Your task to perform on an android device: check the backup settings in the google photos Image 0: 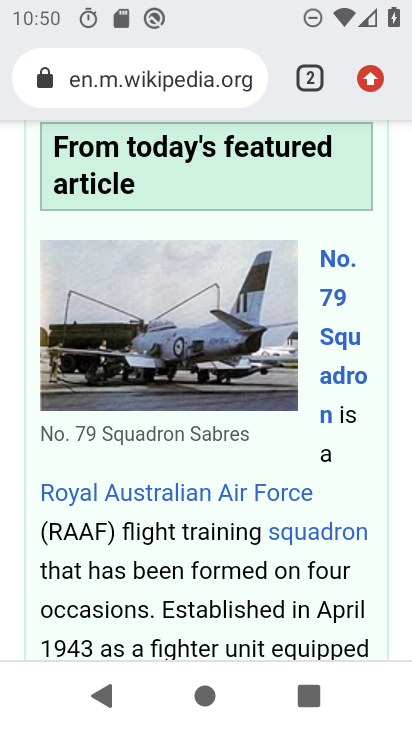
Step 0: press home button
Your task to perform on an android device: check the backup settings in the google photos Image 1: 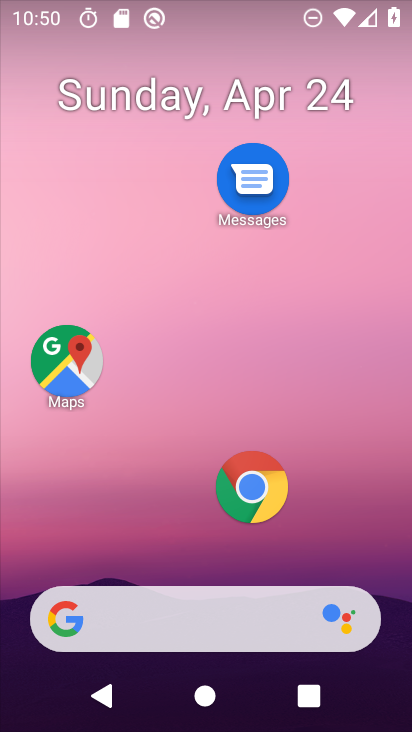
Step 1: drag from (137, 445) to (298, 0)
Your task to perform on an android device: check the backup settings in the google photos Image 2: 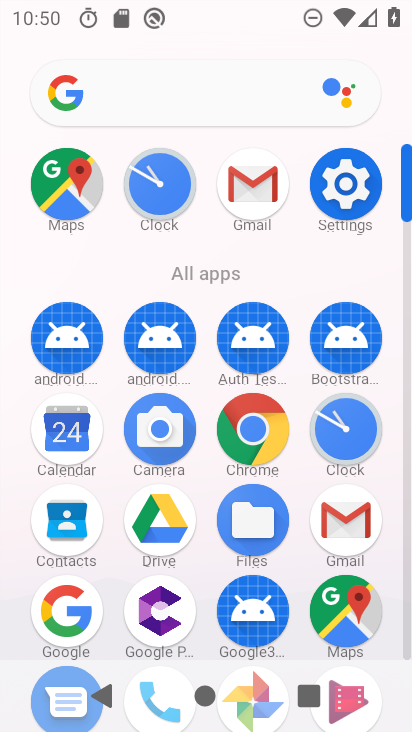
Step 2: drag from (205, 555) to (271, 69)
Your task to perform on an android device: check the backup settings in the google photos Image 3: 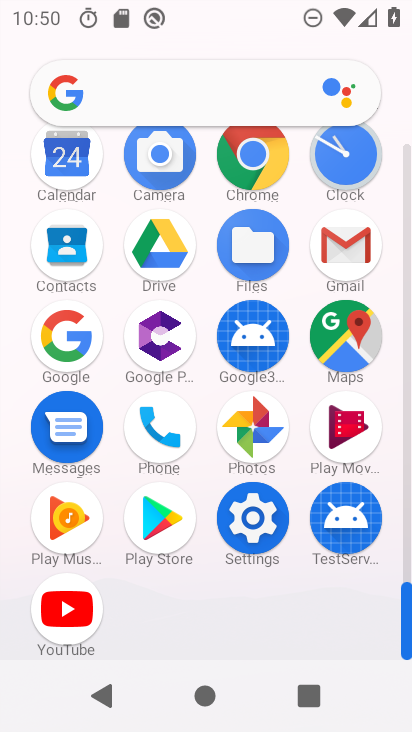
Step 3: click (256, 417)
Your task to perform on an android device: check the backup settings in the google photos Image 4: 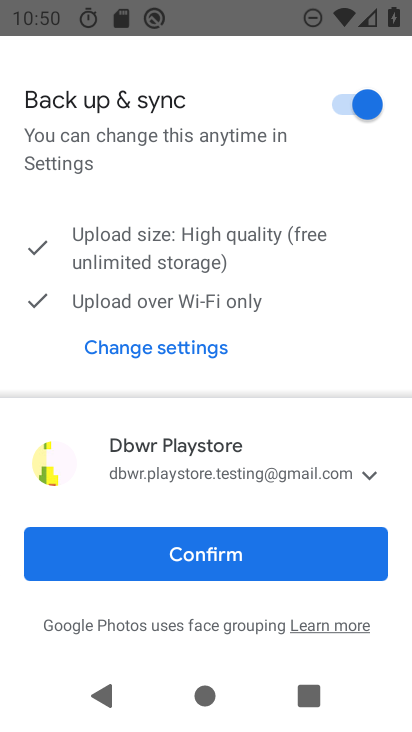
Step 4: click (243, 553)
Your task to perform on an android device: check the backup settings in the google photos Image 5: 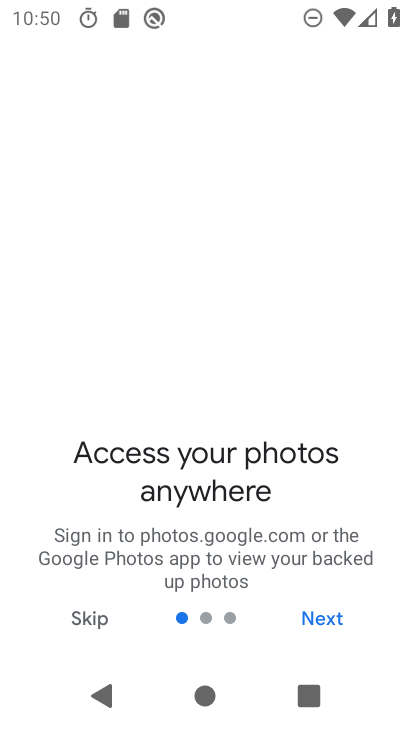
Step 5: click (98, 621)
Your task to perform on an android device: check the backup settings in the google photos Image 6: 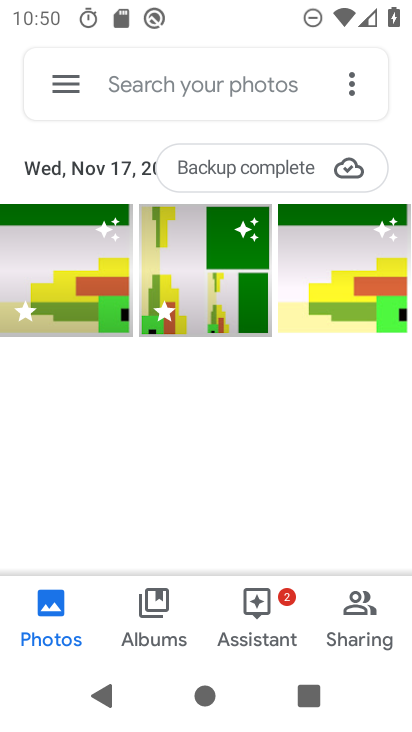
Step 6: click (48, 86)
Your task to perform on an android device: check the backup settings in the google photos Image 7: 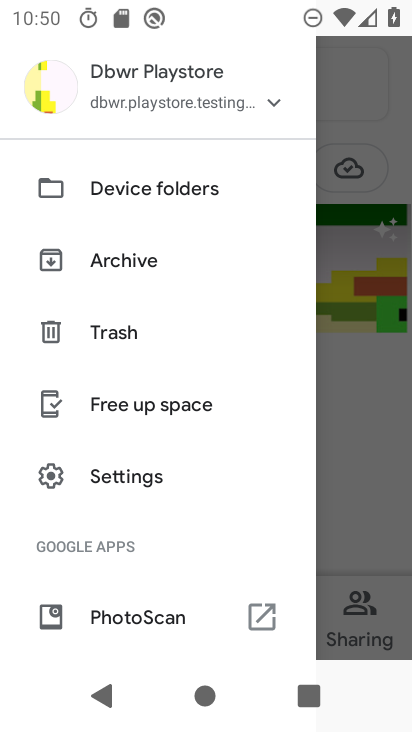
Step 7: click (118, 473)
Your task to perform on an android device: check the backup settings in the google photos Image 8: 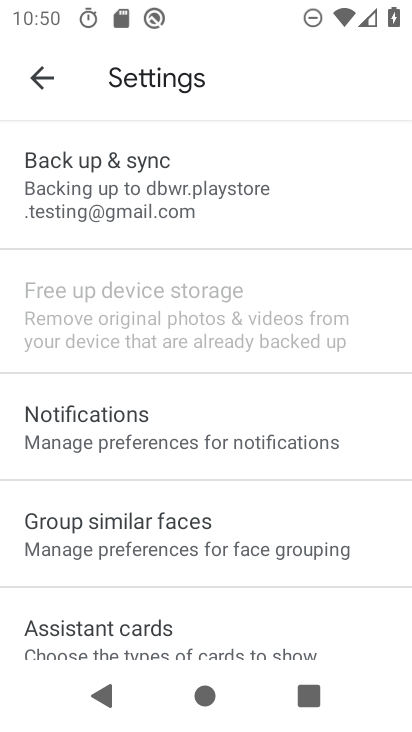
Step 8: click (131, 204)
Your task to perform on an android device: check the backup settings in the google photos Image 9: 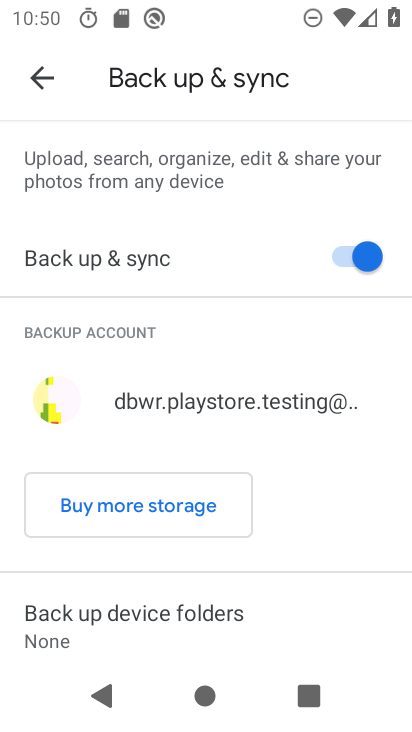
Step 9: task complete